Your task to perform on an android device: Show me popular games on the Play Store Image 0: 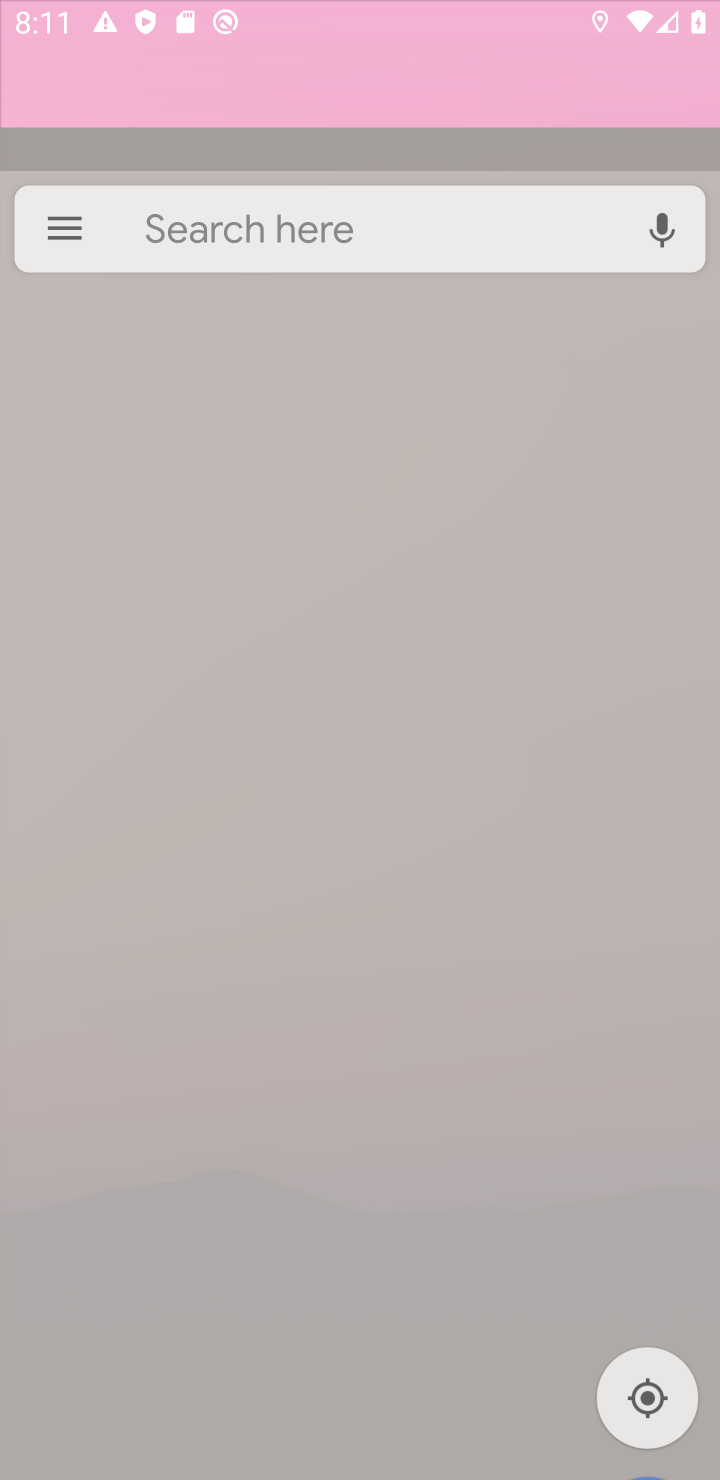
Step 0: press home button
Your task to perform on an android device: Show me popular games on the Play Store Image 1: 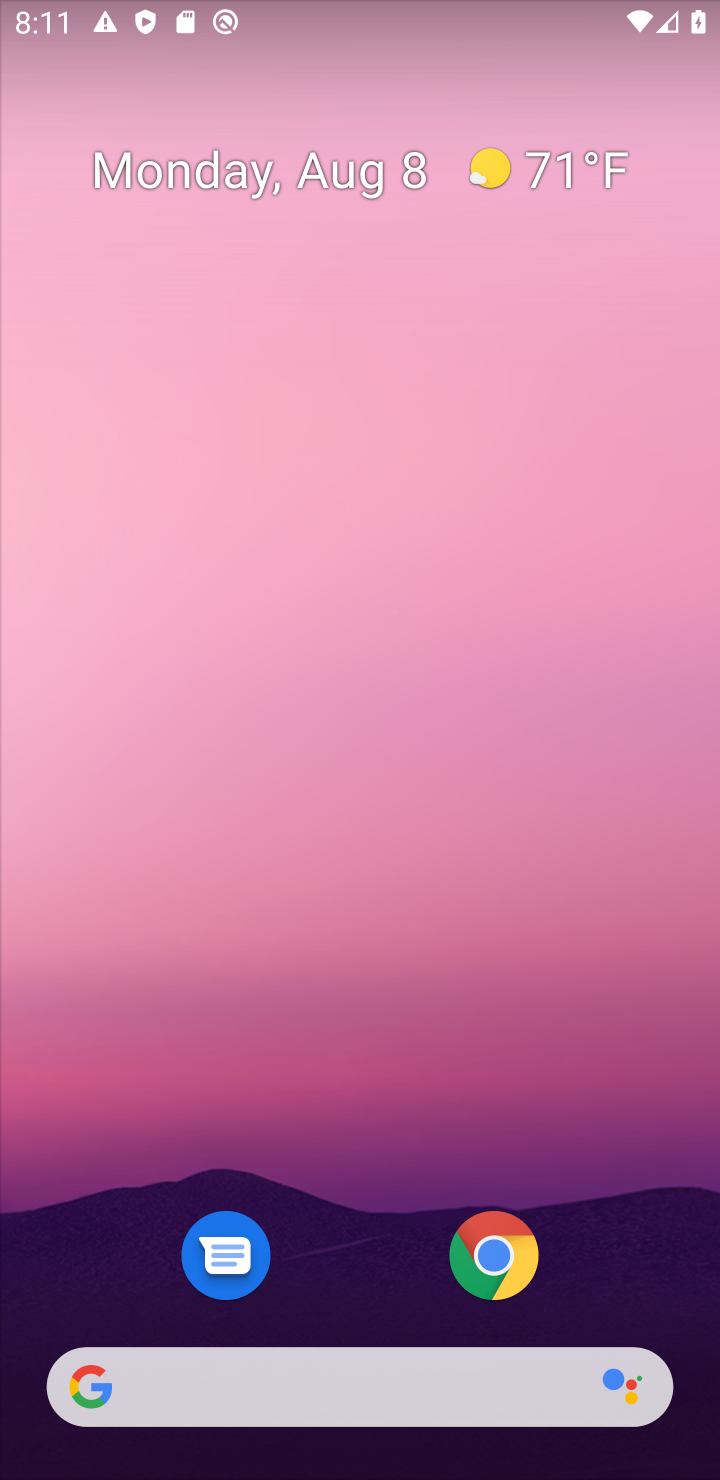
Step 1: drag from (333, 1308) to (382, 642)
Your task to perform on an android device: Show me popular games on the Play Store Image 2: 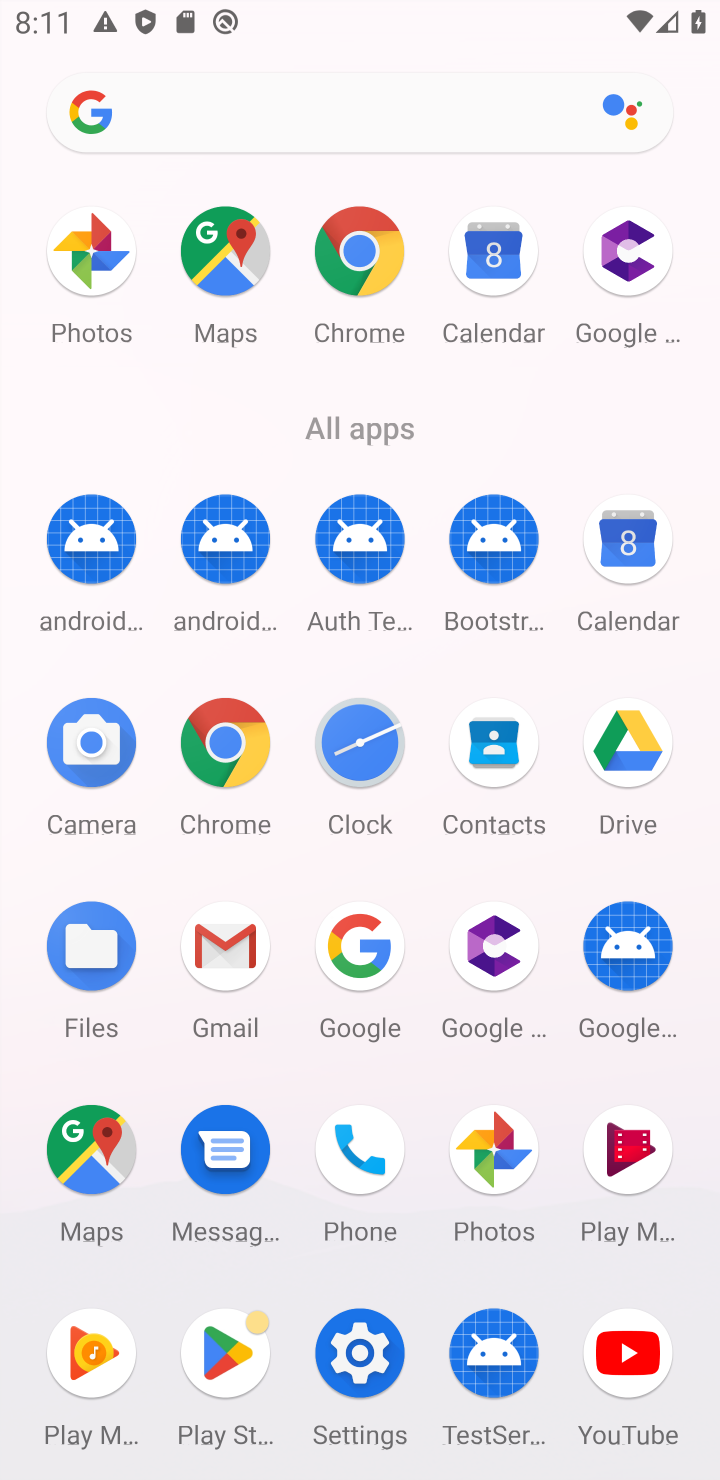
Step 2: click (214, 1368)
Your task to perform on an android device: Show me popular games on the Play Store Image 3: 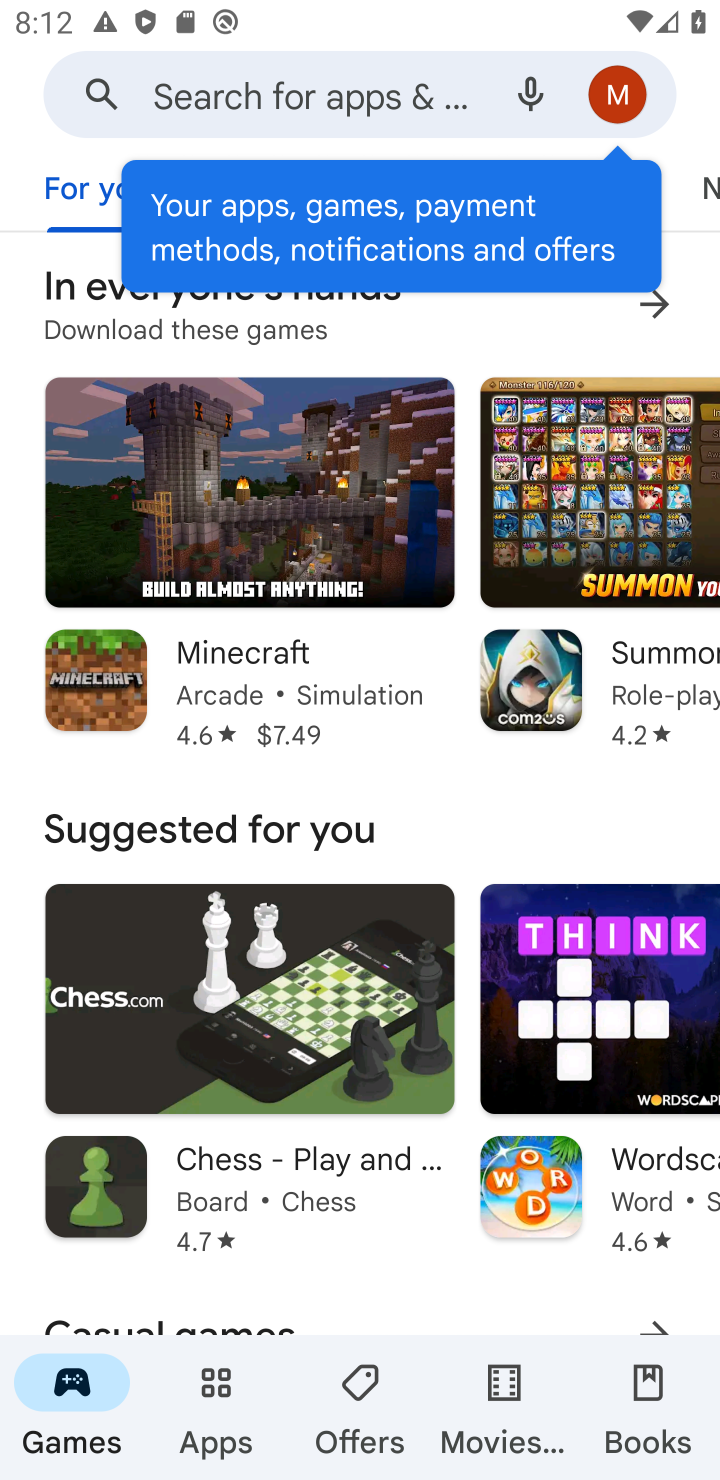
Step 3: click (104, 218)
Your task to perform on an android device: Show me popular games on the Play Store Image 4: 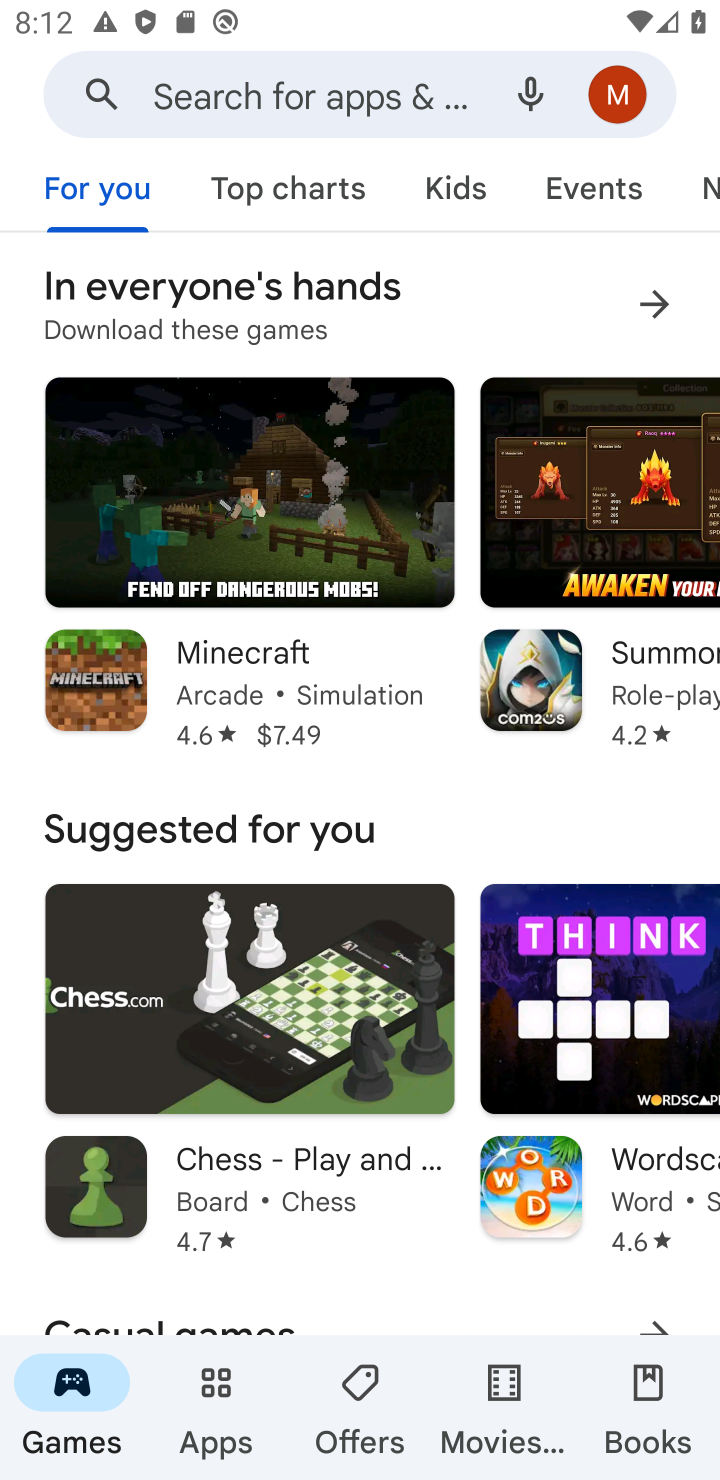
Step 4: click (264, 189)
Your task to perform on an android device: Show me popular games on the Play Store Image 5: 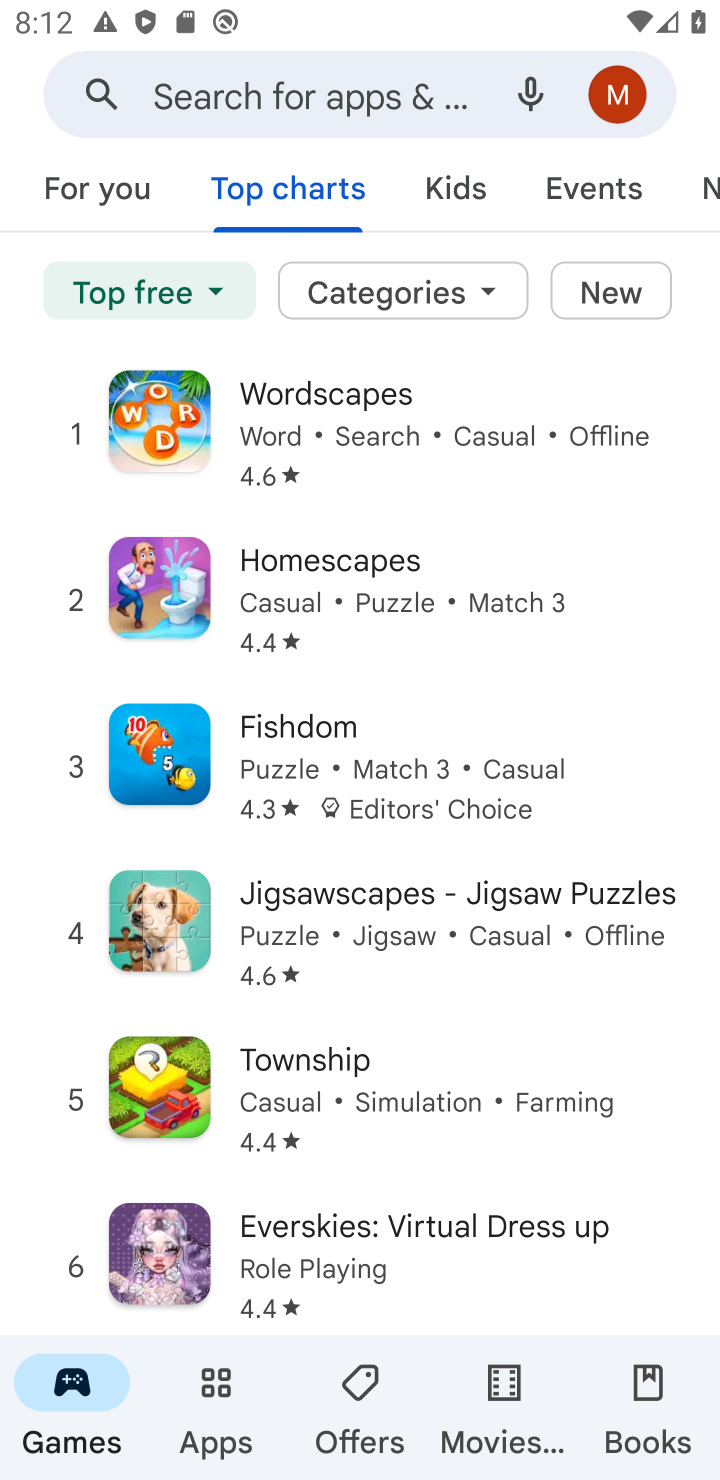
Step 5: task complete